Your task to perform on an android device: open a bookmark in the chrome app Image 0: 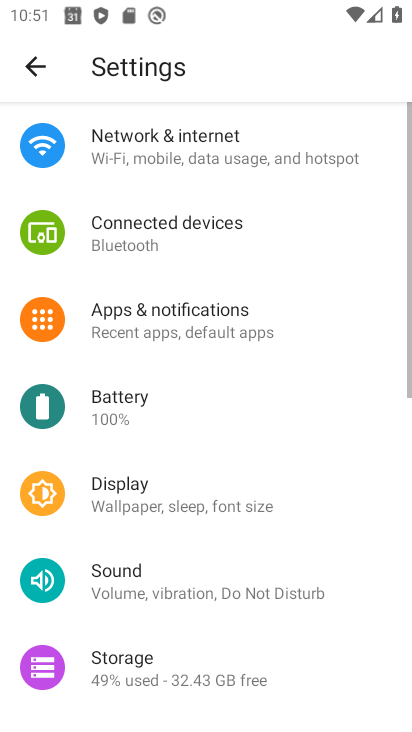
Step 0: press home button
Your task to perform on an android device: open a bookmark in the chrome app Image 1: 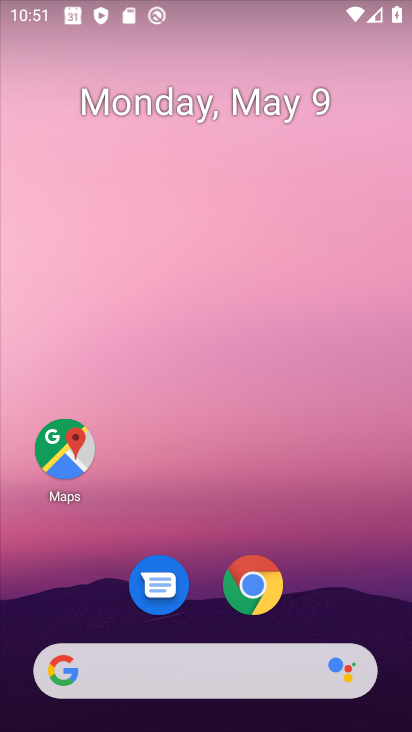
Step 1: click (237, 573)
Your task to perform on an android device: open a bookmark in the chrome app Image 2: 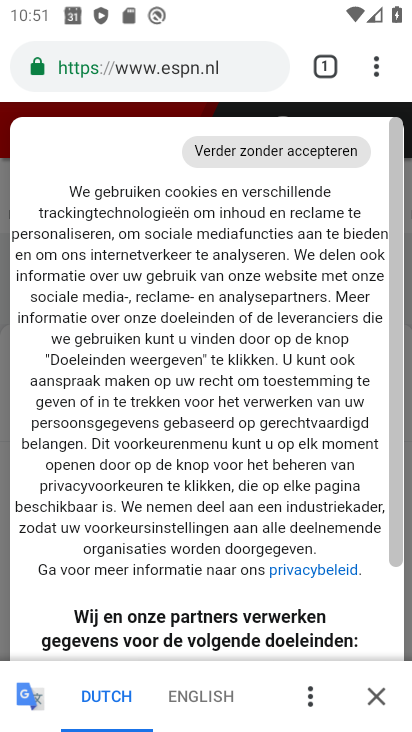
Step 2: click (372, 60)
Your task to perform on an android device: open a bookmark in the chrome app Image 3: 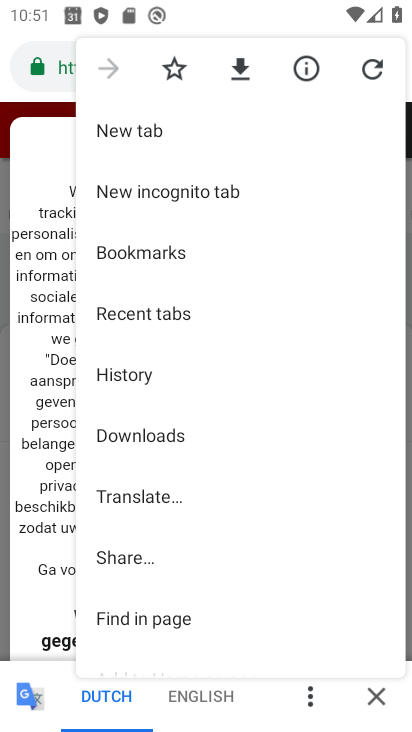
Step 3: click (202, 247)
Your task to perform on an android device: open a bookmark in the chrome app Image 4: 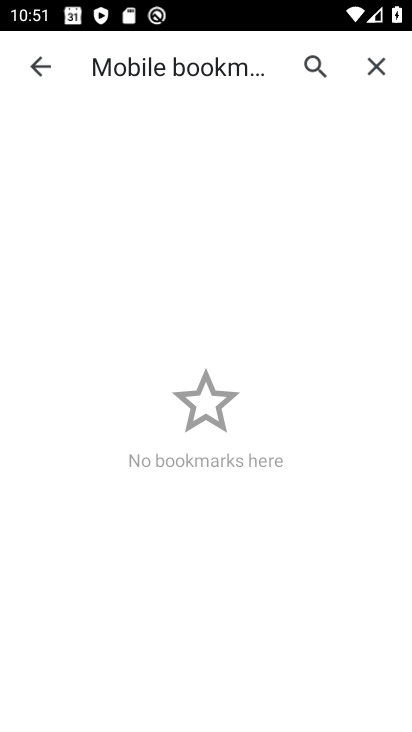
Step 4: click (38, 58)
Your task to perform on an android device: open a bookmark in the chrome app Image 5: 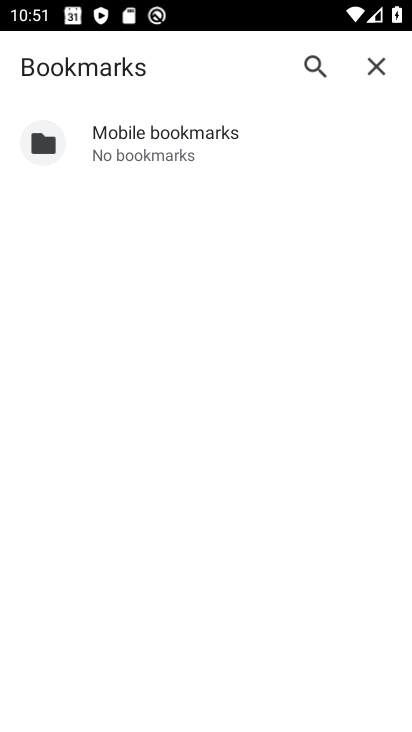
Step 5: click (105, 137)
Your task to perform on an android device: open a bookmark in the chrome app Image 6: 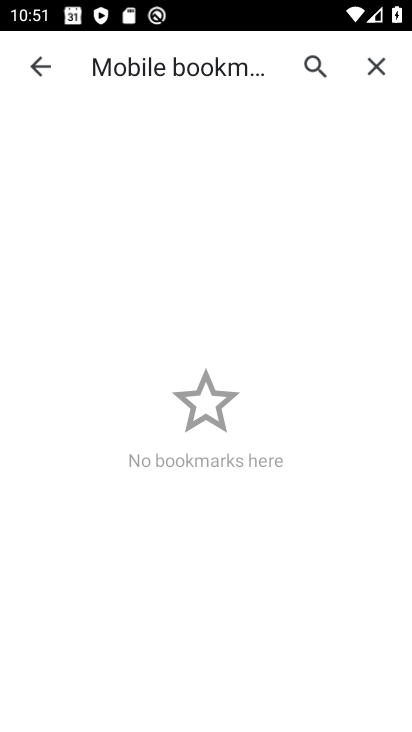
Step 6: task complete